Your task to perform on an android device: change your default location settings in chrome Image 0: 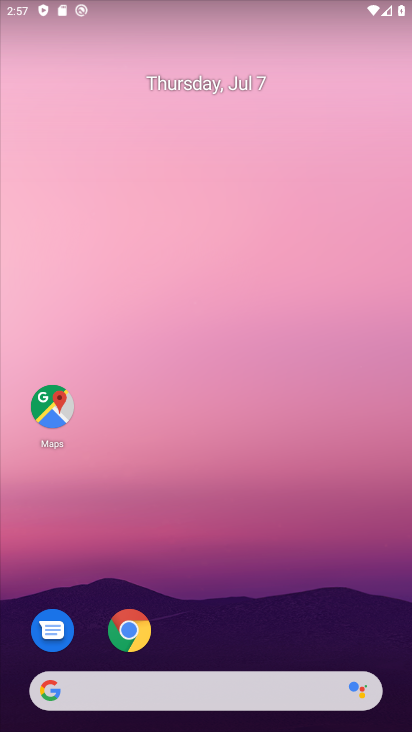
Step 0: drag from (211, 611) to (220, 303)
Your task to perform on an android device: change your default location settings in chrome Image 1: 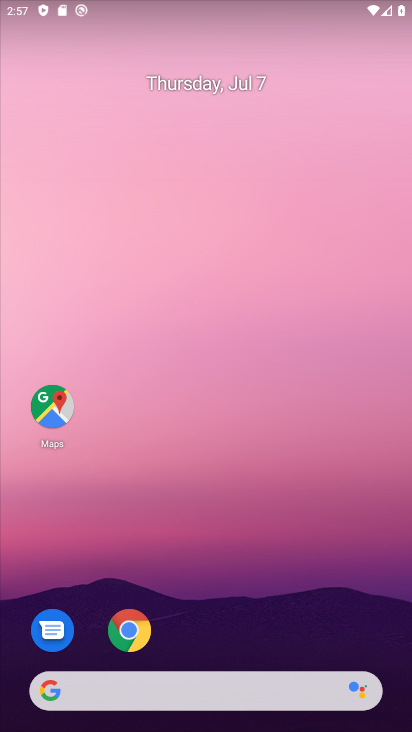
Step 1: click (136, 627)
Your task to perform on an android device: change your default location settings in chrome Image 2: 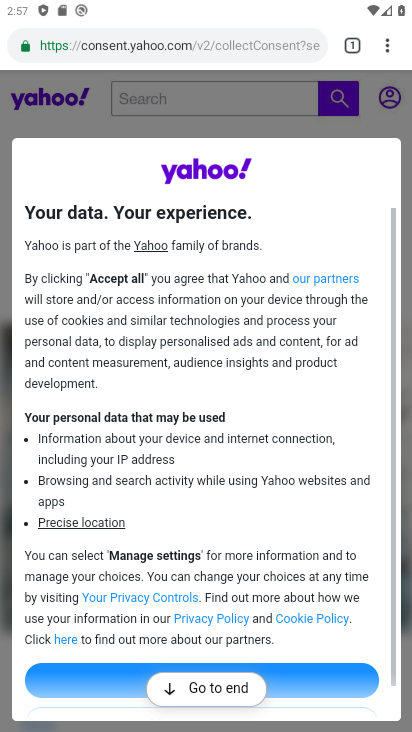
Step 2: click (390, 43)
Your task to perform on an android device: change your default location settings in chrome Image 3: 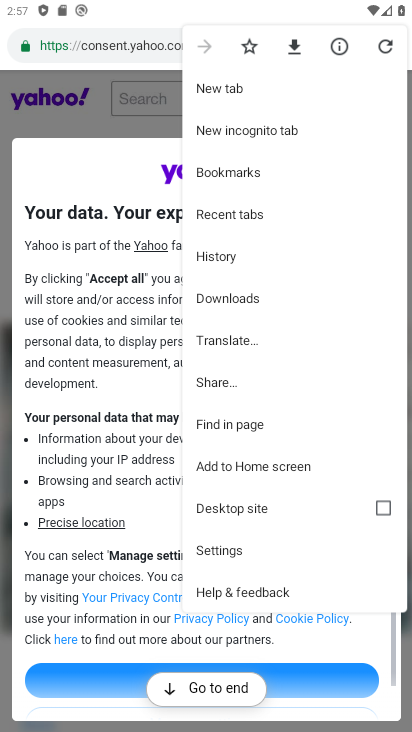
Step 3: click (219, 552)
Your task to perform on an android device: change your default location settings in chrome Image 4: 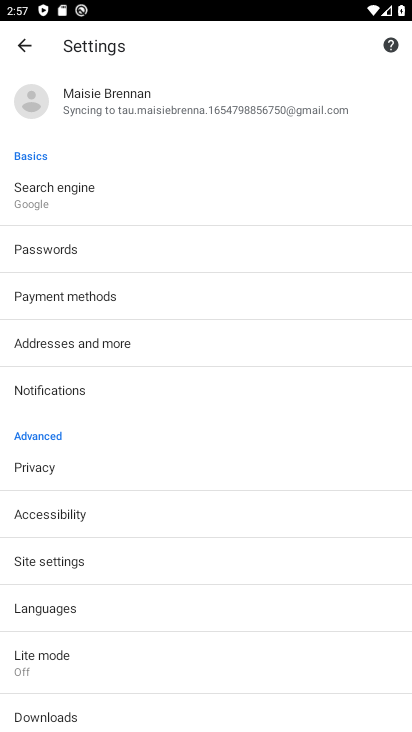
Step 4: click (66, 558)
Your task to perform on an android device: change your default location settings in chrome Image 5: 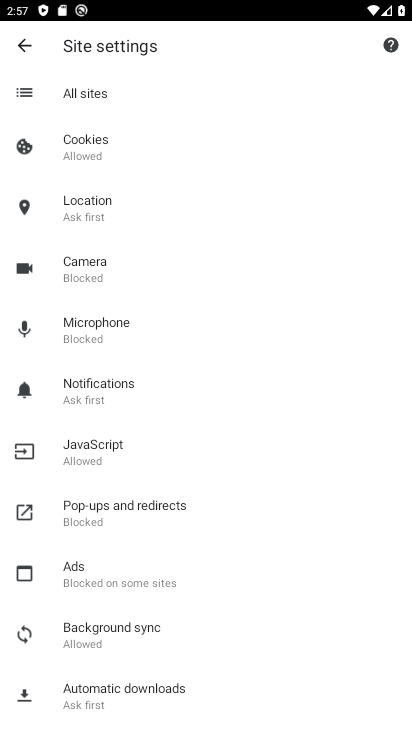
Step 5: click (105, 213)
Your task to perform on an android device: change your default location settings in chrome Image 6: 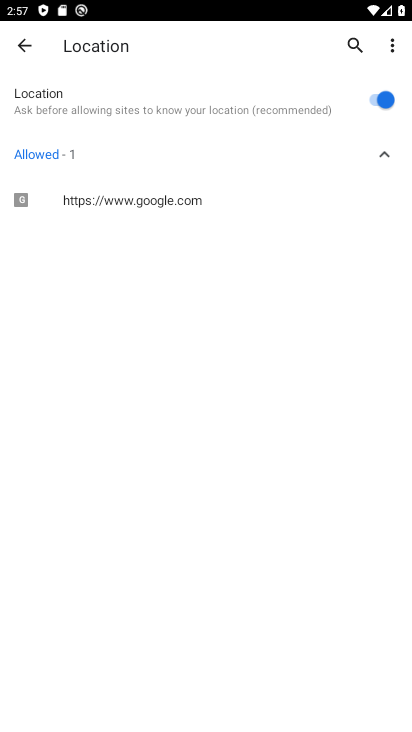
Step 6: click (366, 102)
Your task to perform on an android device: change your default location settings in chrome Image 7: 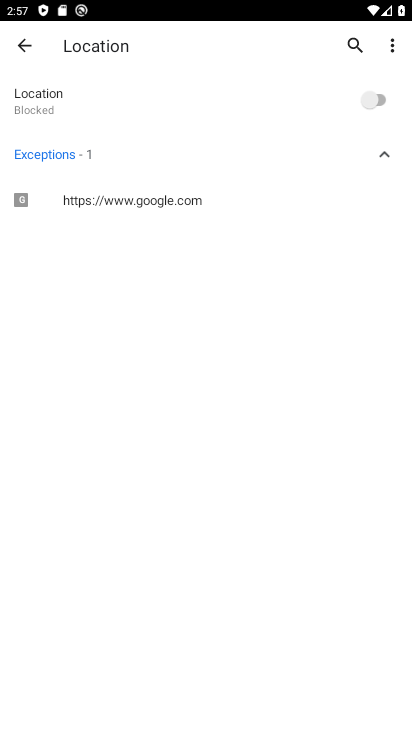
Step 7: task complete